Your task to perform on an android device: delete the emails in spam in the gmail app Image 0: 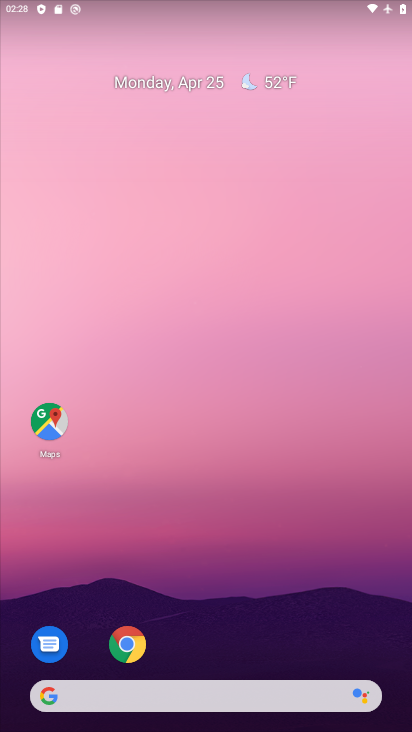
Step 0: drag from (253, 657) to (251, 330)
Your task to perform on an android device: delete the emails in spam in the gmail app Image 1: 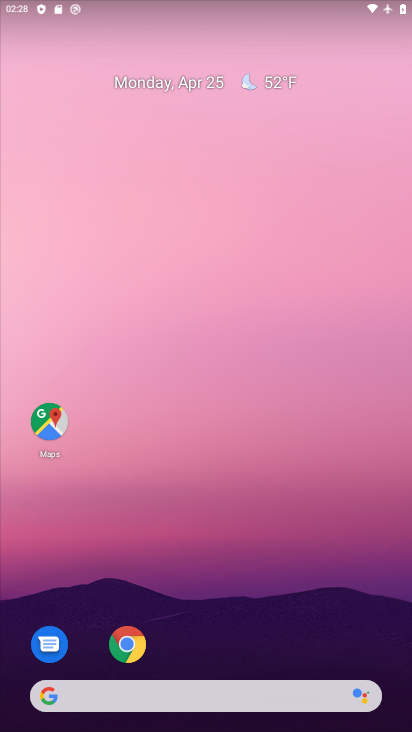
Step 1: drag from (257, 638) to (258, 69)
Your task to perform on an android device: delete the emails in spam in the gmail app Image 2: 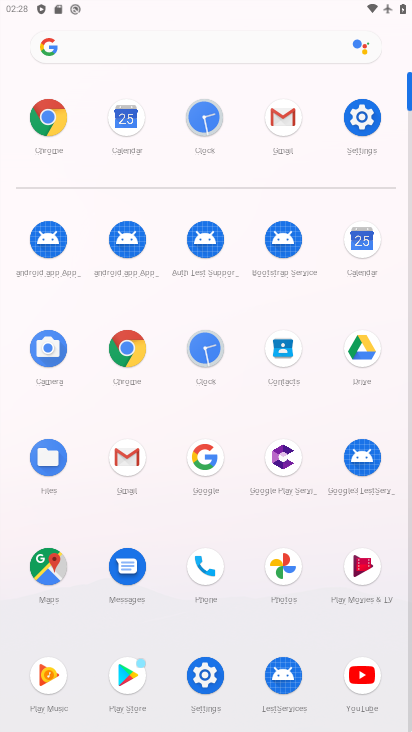
Step 2: click (294, 142)
Your task to perform on an android device: delete the emails in spam in the gmail app Image 3: 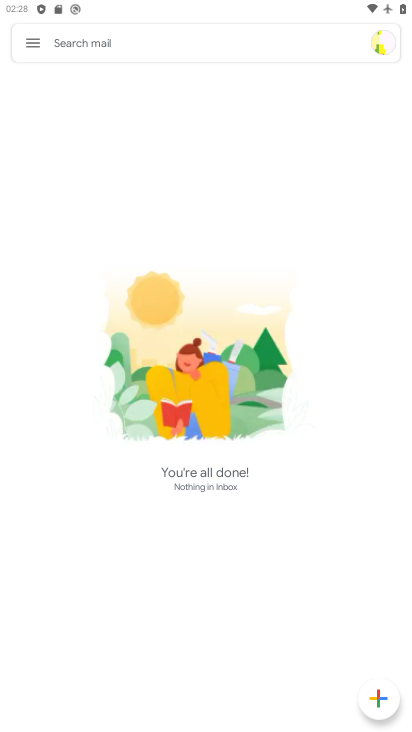
Step 3: click (33, 31)
Your task to perform on an android device: delete the emails in spam in the gmail app Image 4: 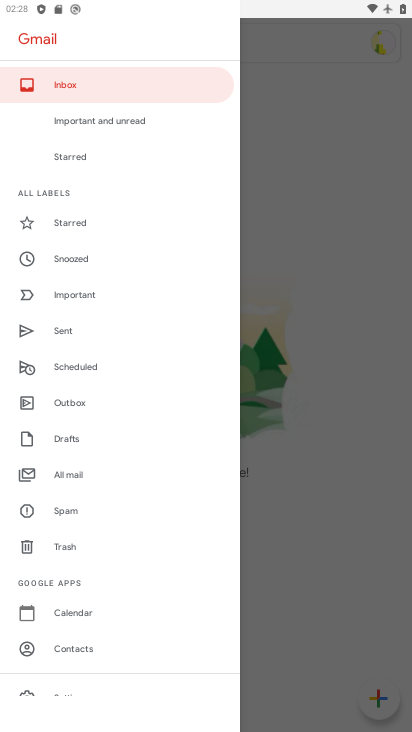
Step 4: click (72, 502)
Your task to perform on an android device: delete the emails in spam in the gmail app Image 5: 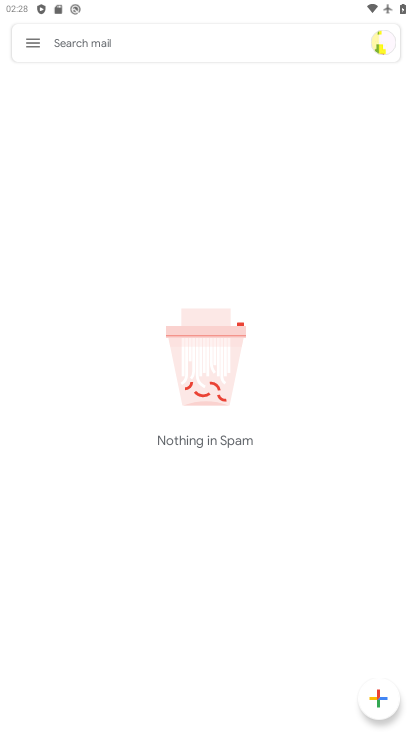
Step 5: task complete